Your task to perform on an android device: Turn on the flashlight Image 0: 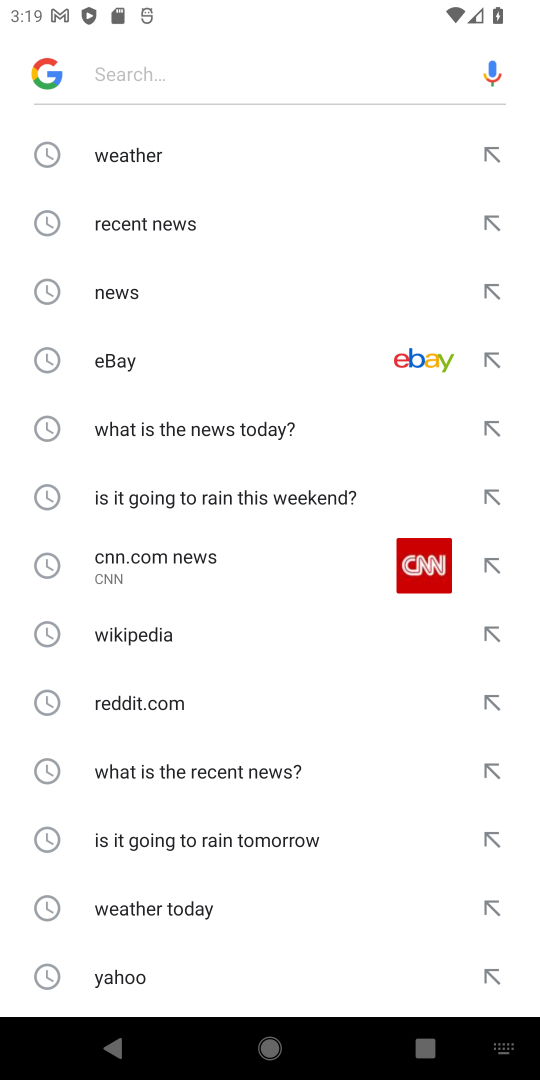
Step 0: press home button
Your task to perform on an android device: Turn on the flashlight Image 1: 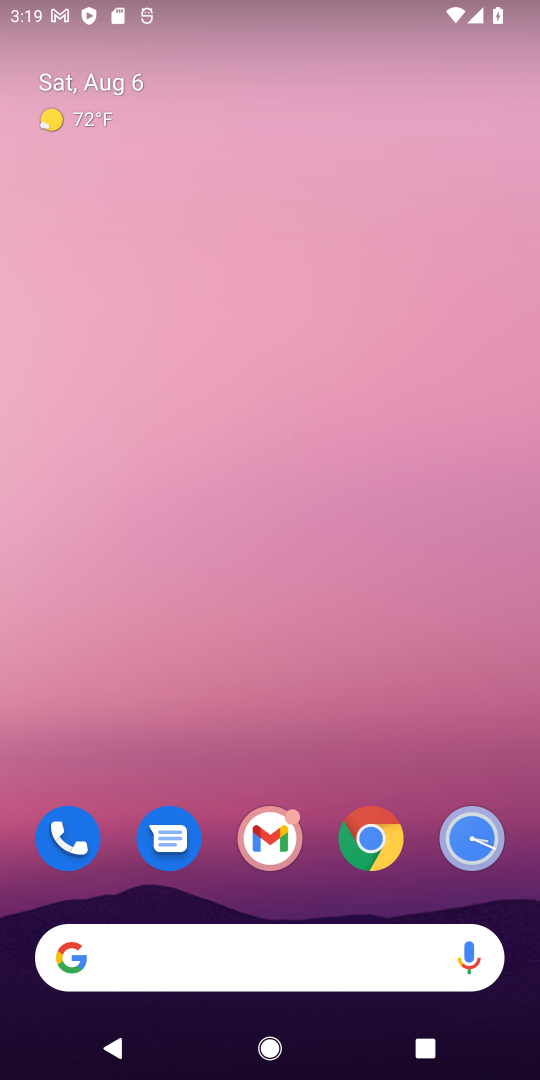
Step 1: drag from (263, 3) to (294, 638)
Your task to perform on an android device: Turn on the flashlight Image 2: 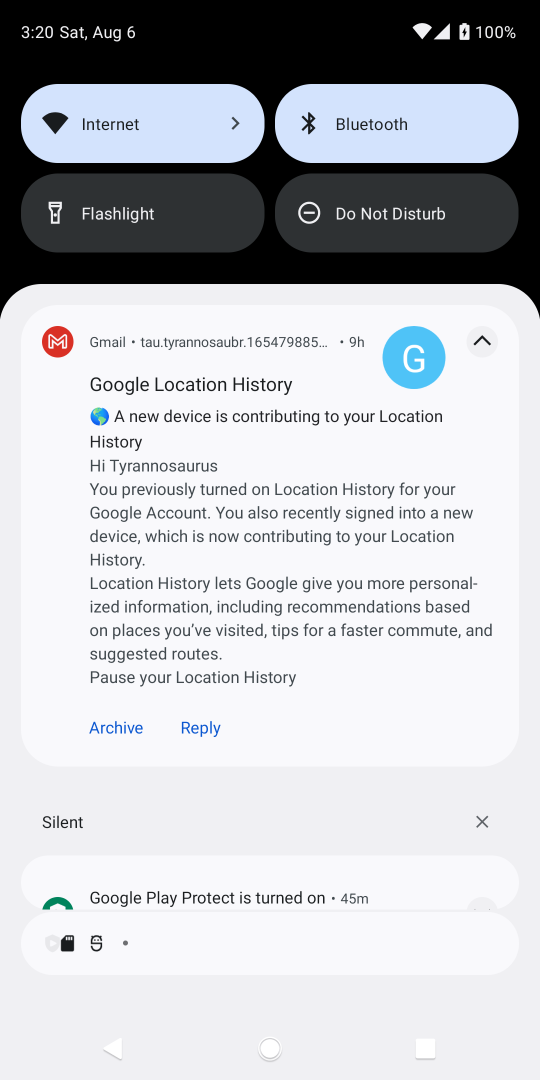
Step 2: click (163, 209)
Your task to perform on an android device: Turn on the flashlight Image 3: 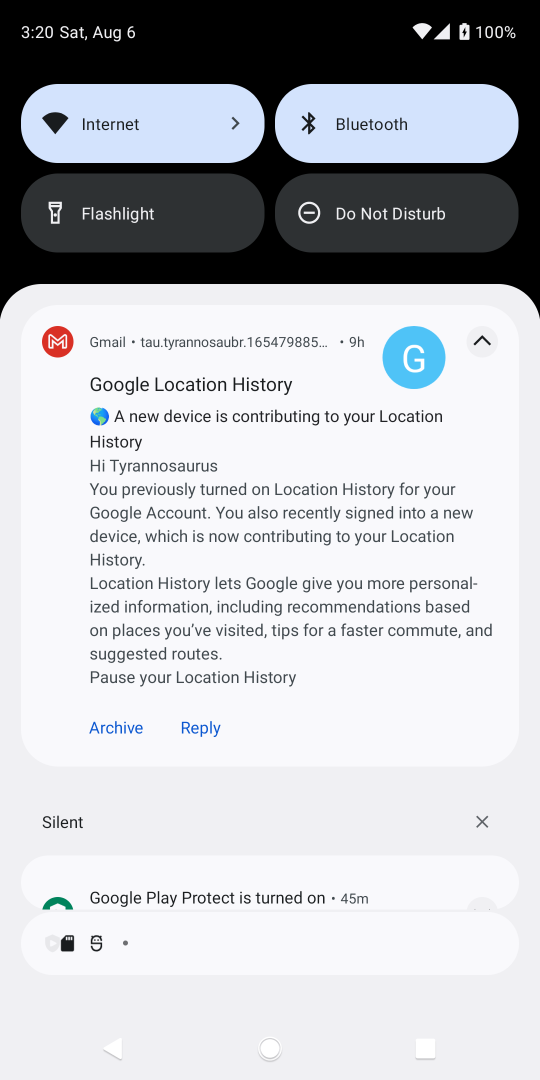
Step 3: task complete